Your task to perform on an android device: change timer sound Image 0: 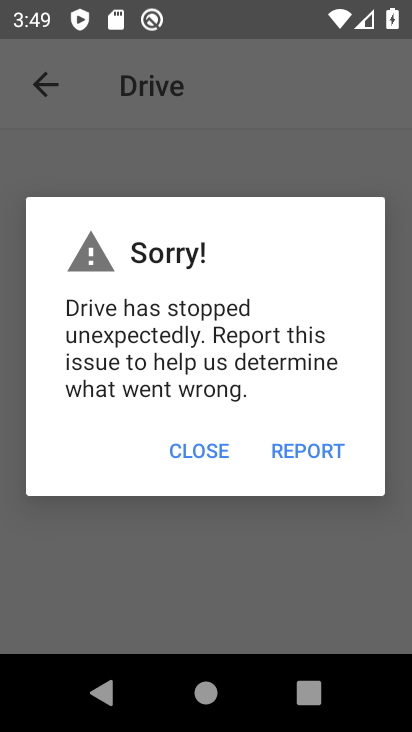
Step 0: press home button
Your task to perform on an android device: change timer sound Image 1: 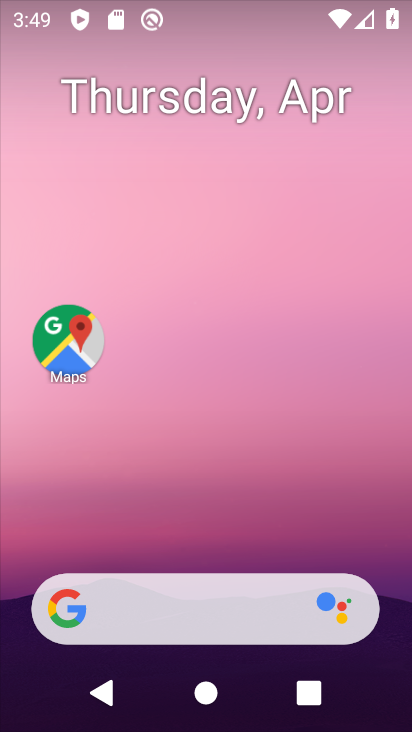
Step 1: drag from (216, 655) to (184, 118)
Your task to perform on an android device: change timer sound Image 2: 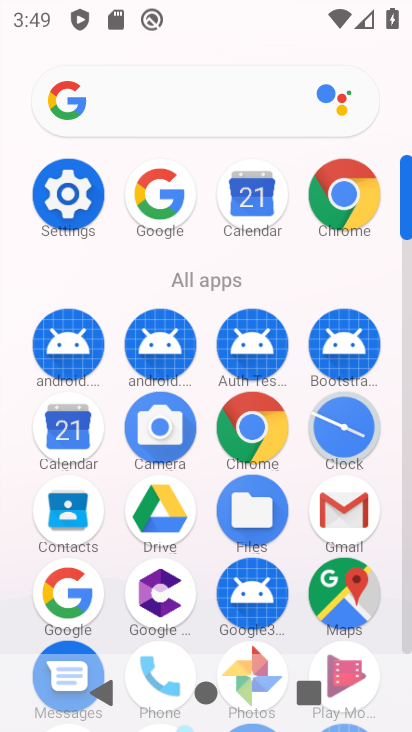
Step 2: click (344, 426)
Your task to perform on an android device: change timer sound Image 3: 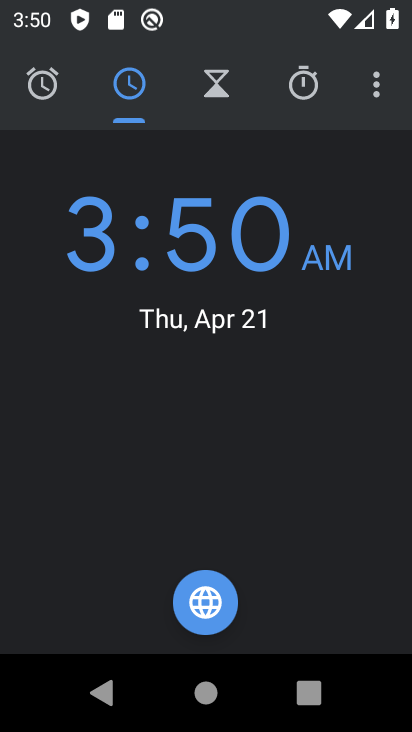
Step 3: click (375, 95)
Your task to perform on an android device: change timer sound Image 4: 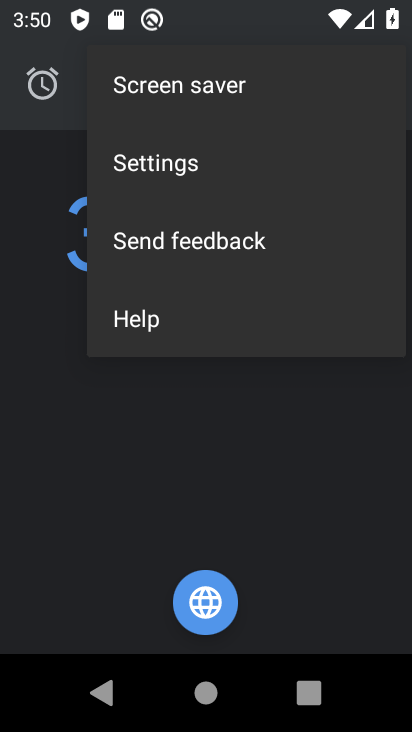
Step 4: click (161, 159)
Your task to perform on an android device: change timer sound Image 5: 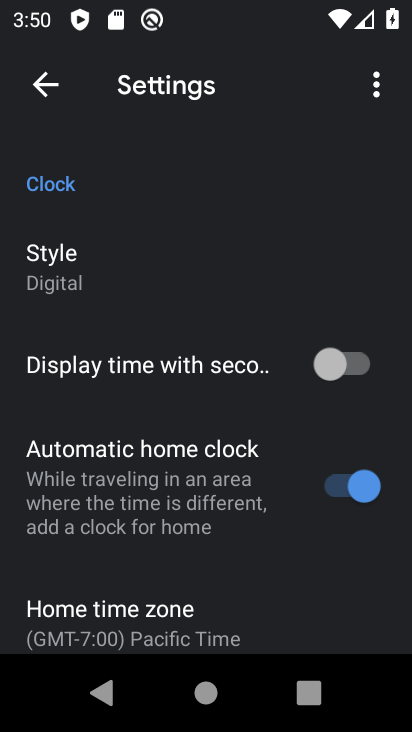
Step 5: drag from (154, 572) to (127, 206)
Your task to perform on an android device: change timer sound Image 6: 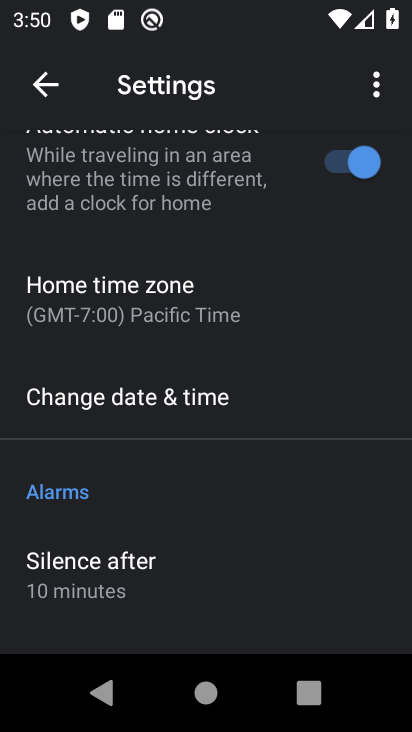
Step 6: drag from (189, 615) to (201, 254)
Your task to perform on an android device: change timer sound Image 7: 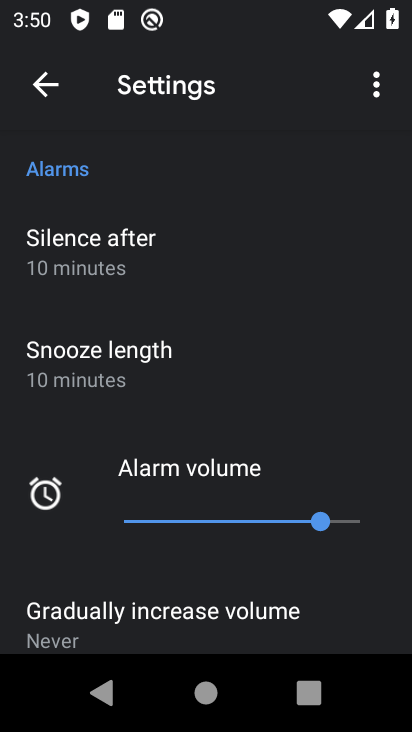
Step 7: drag from (108, 589) to (141, 237)
Your task to perform on an android device: change timer sound Image 8: 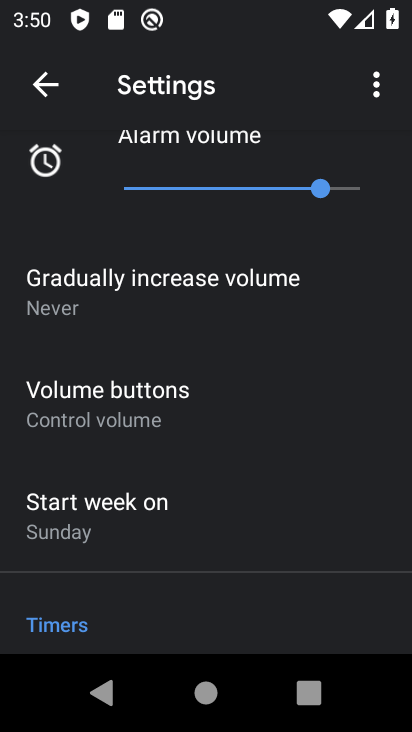
Step 8: drag from (163, 636) to (214, 328)
Your task to perform on an android device: change timer sound Image 9: 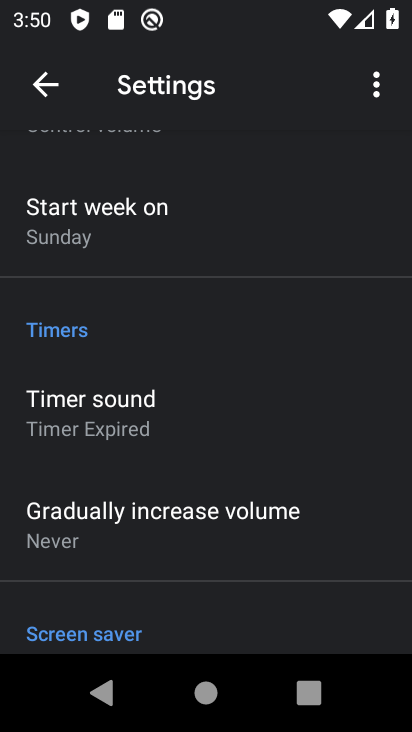
Step 9: click (104, 418)
Your task to perform on an android device: change timer sound Image 10: 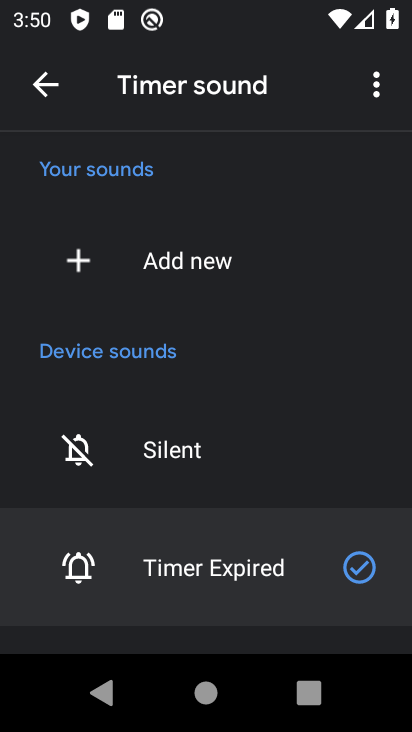
Step 10: drag from (186, 590) to (209, 297)
Your task to perform on an android device: change timer sound Image 11: 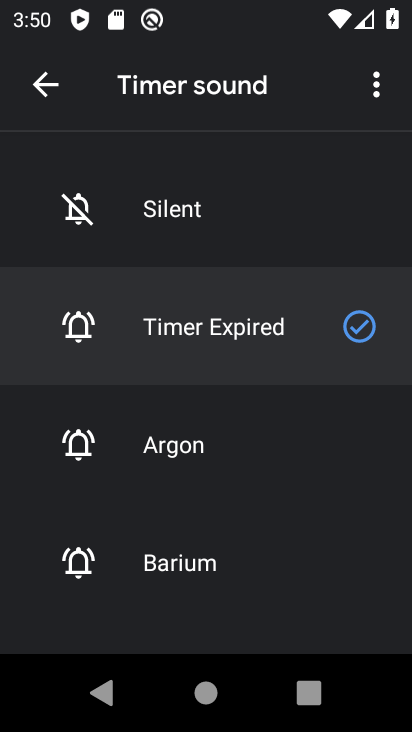
Step 11: click (160, 564)
Your task to perform on an android device: change timer sound Image 12: 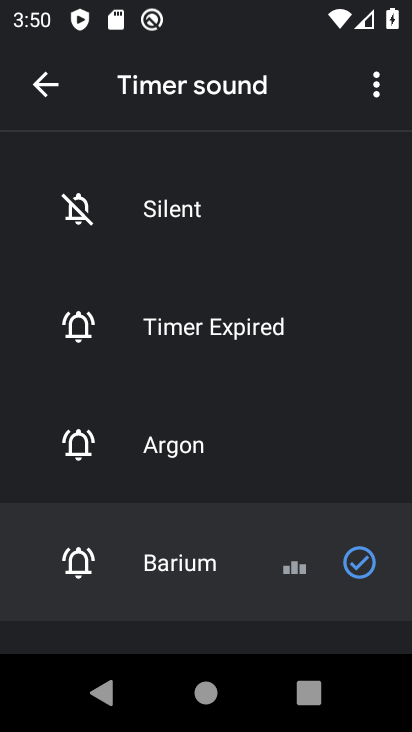
Step 12: task complete